Your task to perform on an android device: See recent photos Image 0: 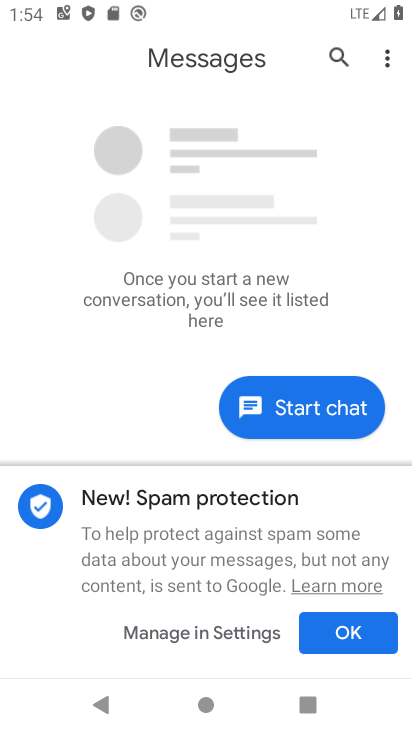
Step 0: press home button
Your task to perform on an android device: See recent photos Image 1: 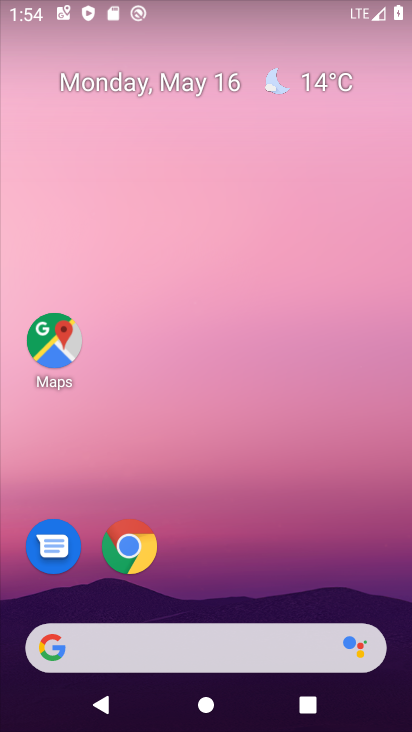
Step 1: drag from (301, 635) to (259, 221)
Your task to perform on an android device: See recent photos Image 2: 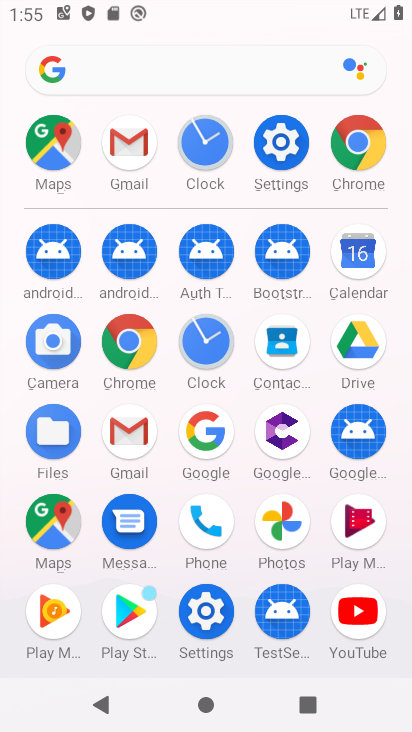
Step 2: click (277, 509)
Your task to perform on an android device: See recent photos Image 3: 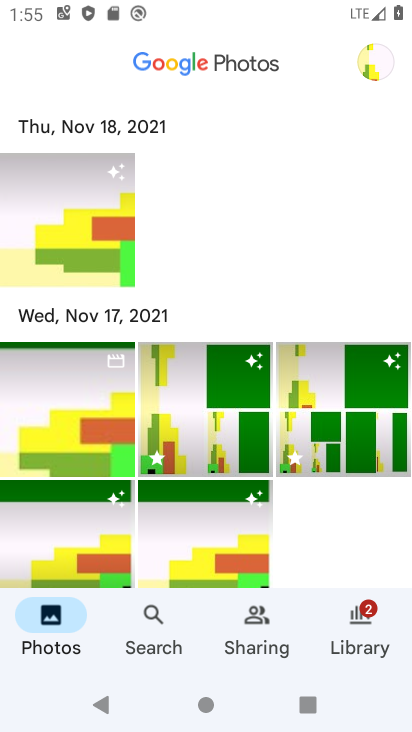
Step 3: task complete